Your task to perform on an android device: check data usage Image 0: 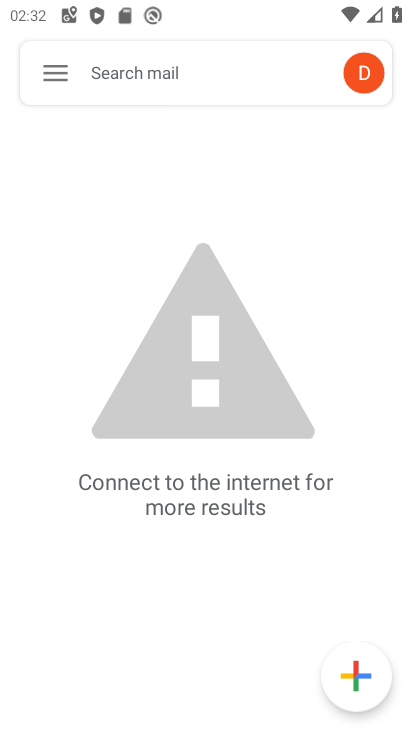
Step 0: press home button
Your task to perform on an android device: check data usage Image 1: 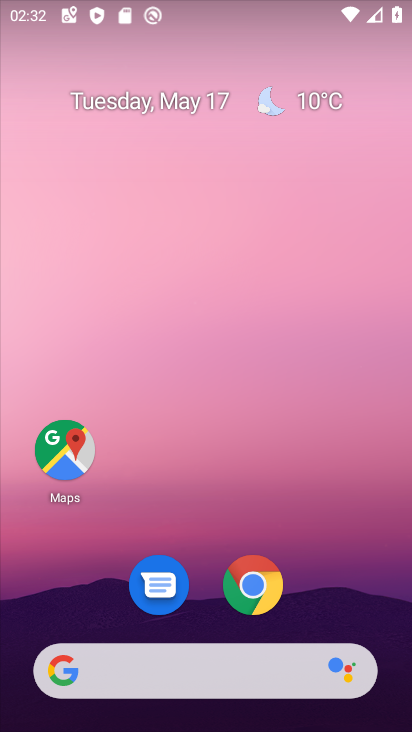
Step 1: drag from (273, 423) to (274, 0)
Your task to perform on an android device: check data usage Image 2: 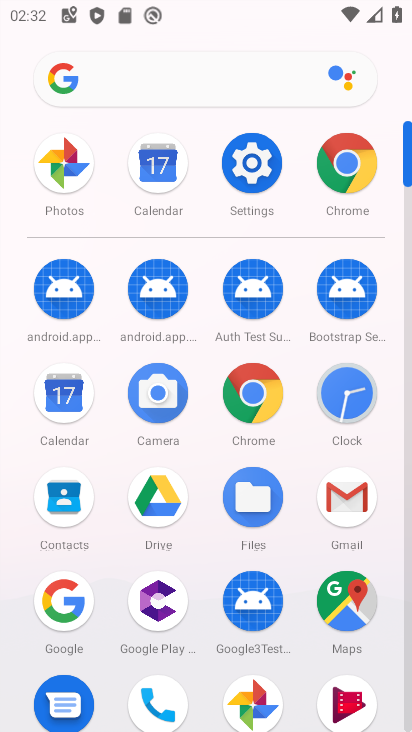
Step 2: click (260, 170)
Your task to perform on an android device: check data usage Image 3: 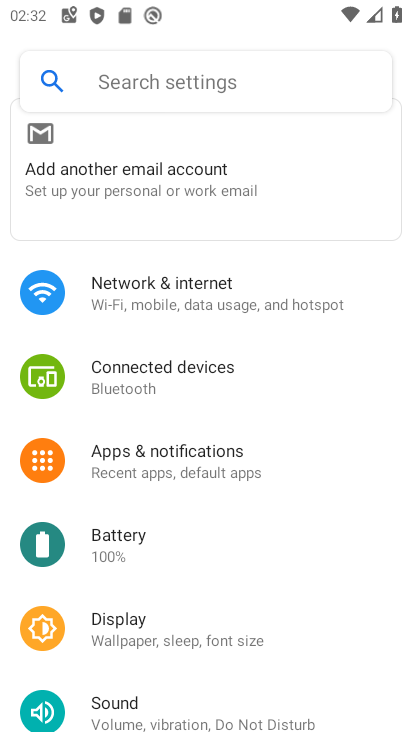
Step 3: click (241, 285)
Your task to perform on an android device: check data usage Image 4: 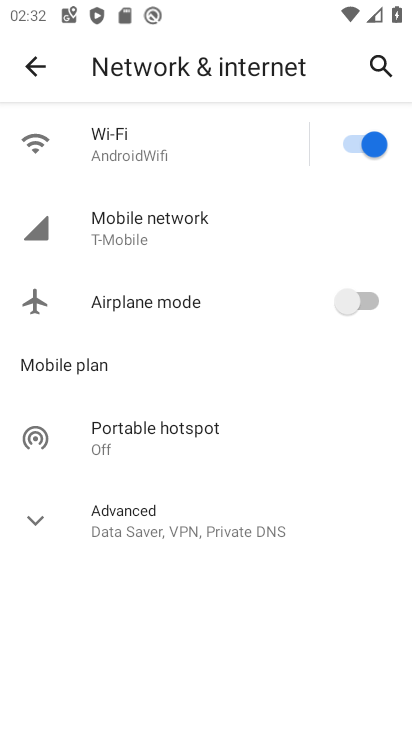
Step 4: click (227, 230)
Your task to perform on an android device: check data usage Image 5: 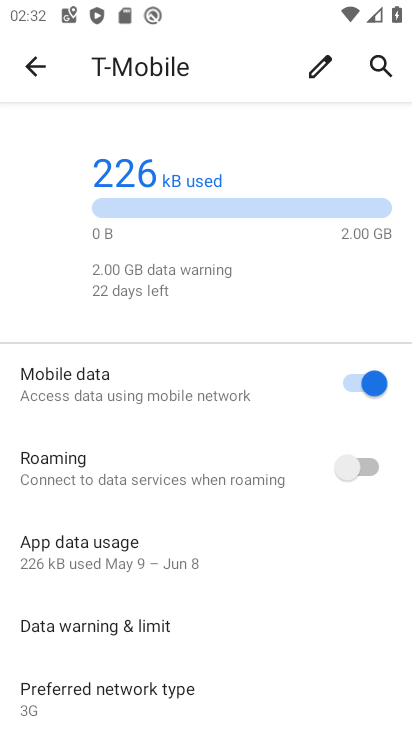
Step 5: task complete